Your task to perform on an android device: create a new album in the google photos Image 0: 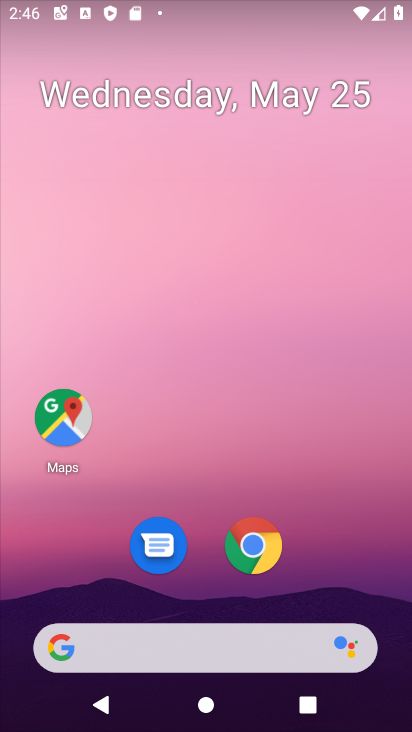
Step 0: drag from (360, 570) to (215, 8)
Your task to perform on an android device: create a new album in the google photos Image 1: 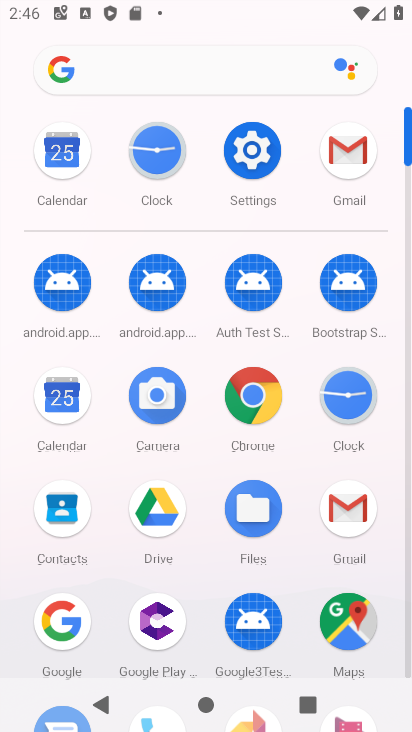
Step 1: click (409, 672)
Your task to perform on an android device: create a new album in the google photos Image 2: 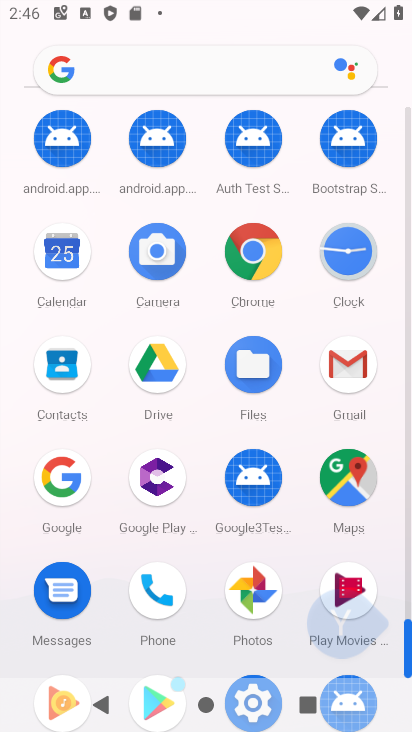
Step 2: click (409, 672)
Your task to perform on an android device: create a new album in the google photos Image 3: 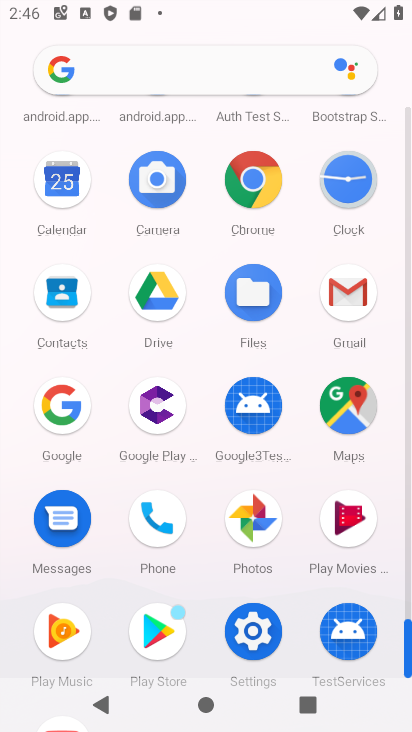
Step 3: click (255, 535)
Your task to perform on an android device: create a new album in the google photos Image 4: 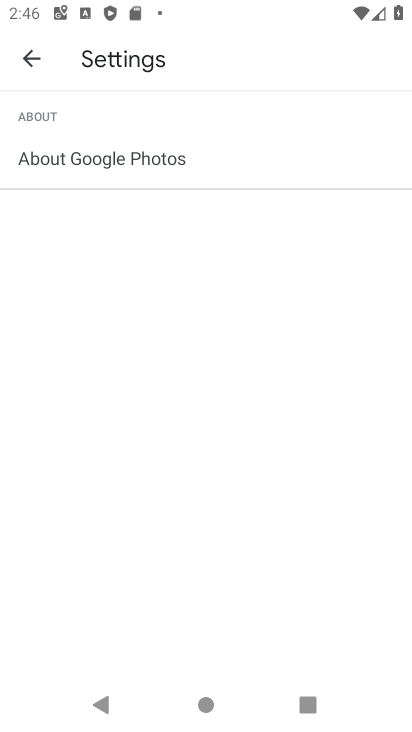
Step 4: click (37, 68)
Your task to perform on an android device: create a new album in the google photos Image 5: 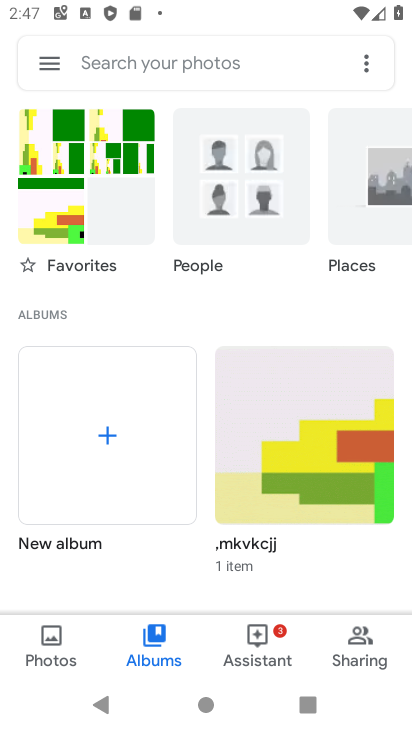
Step 5: click (90, 424)
Your task to perform on an android device: create a new album in the google photos Image 6: 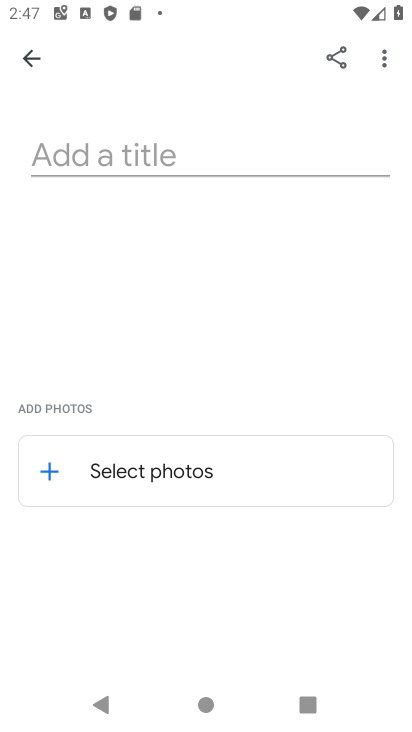
Step 6: click (135, 161)
Your task to perform on an android device: create a new album in the google photos Image 7: 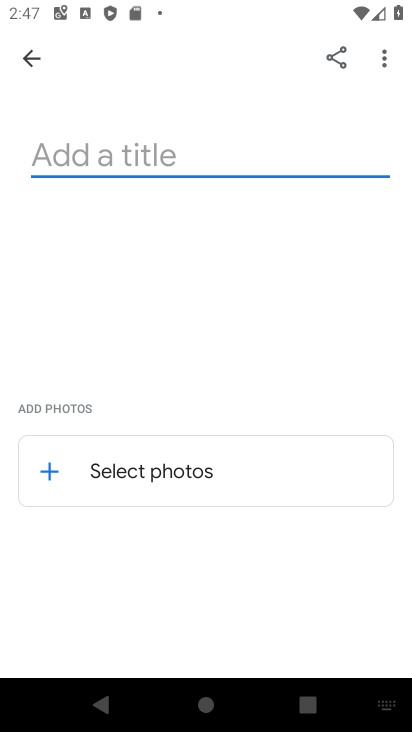
Step 7: type "lkbvlkv"
Your task to perform on an android device: create a new album in the google photos Image 8: 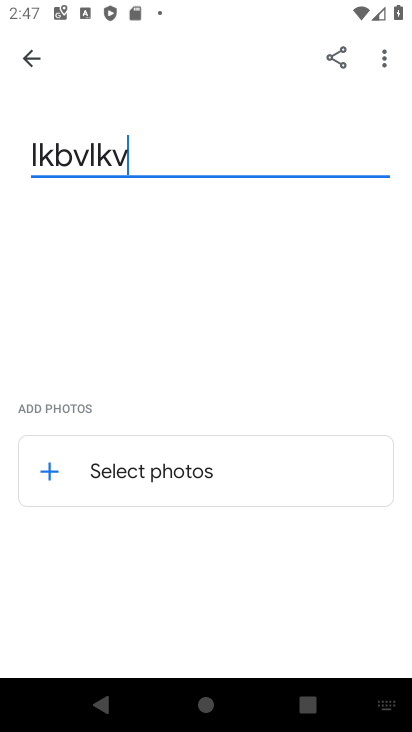
Step 8: click (224, 470)
Your task to perform on an android device: create a new album in the google photos Image 9: 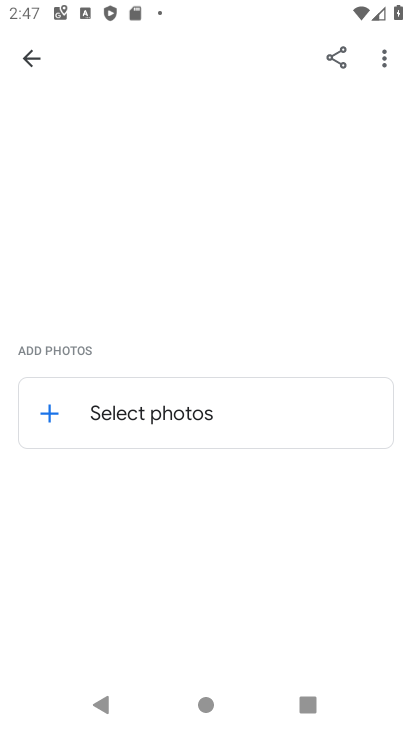
Step 9: click (222, 429)
Your task to perform on an android device: create a new album in the google photos Image 10: 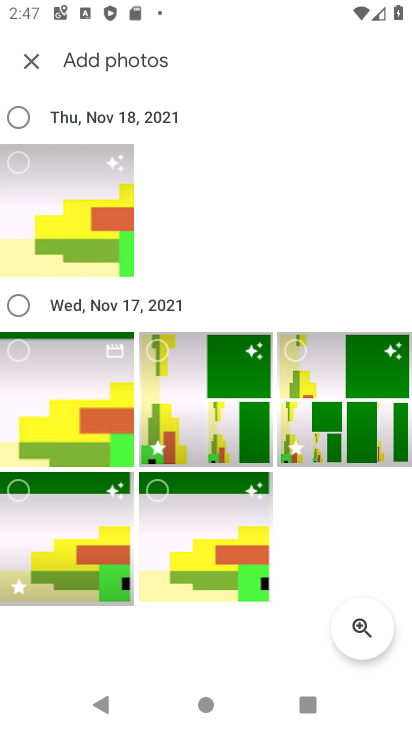
Step 10: click (24, 118)
Your task to perform on an android device: create a new album in the google photos Image 11: 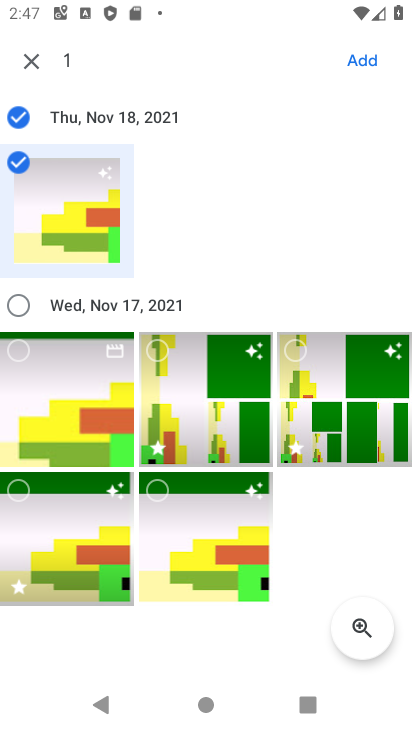
Step 11: click (31, 309)
Your task to perform on an android device: create a new album in the google photos Image 12: 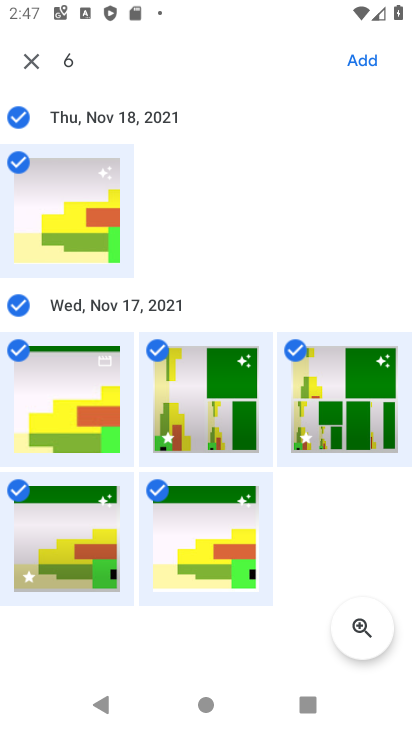
Step 12: click (374, 61)
Your task to perform on an android device: create a new album in the google photos Image 13: 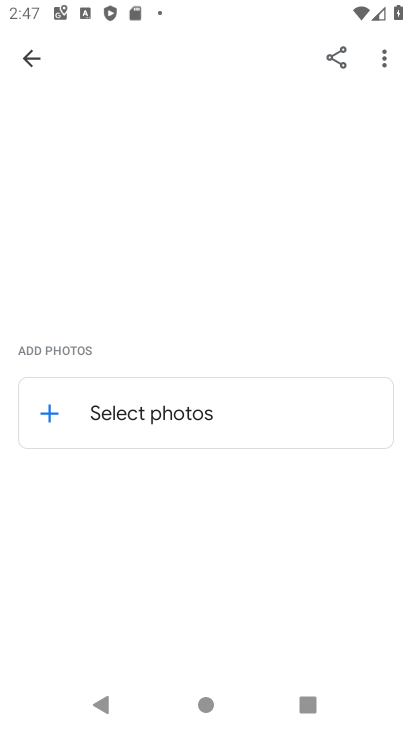
Step 13: task complete